Your task to perform on an android device: Search for pizza restaurants on Maps Image 0: 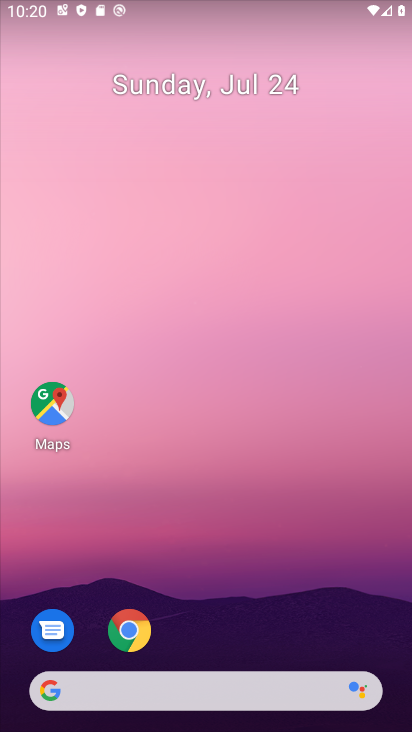
Step 0: click (36, 413)
Your task to perform on an android device: Search for pizza restaurants on Maps Image 1: 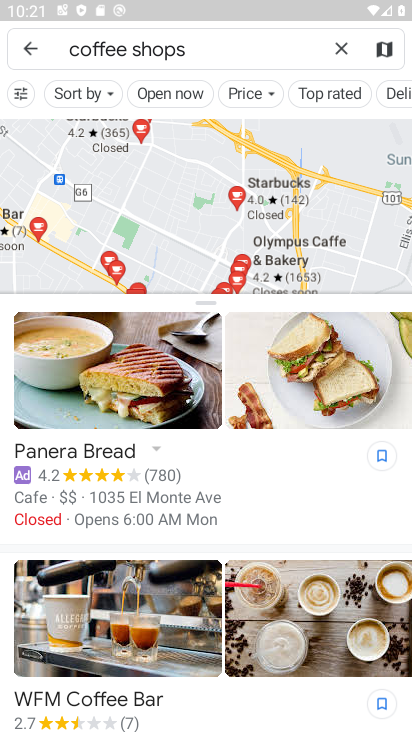
Step 1: click (334, 49)
Your task to perform on an android device: Search for pizza restaurants on Maps Image 2: 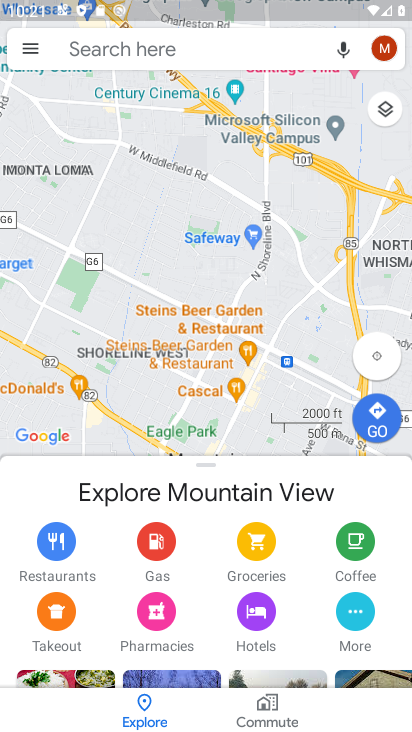
Step 2: click (203, 47)
Your task to perform on an android device: Search for pizza restaurants on Maps Image 3: 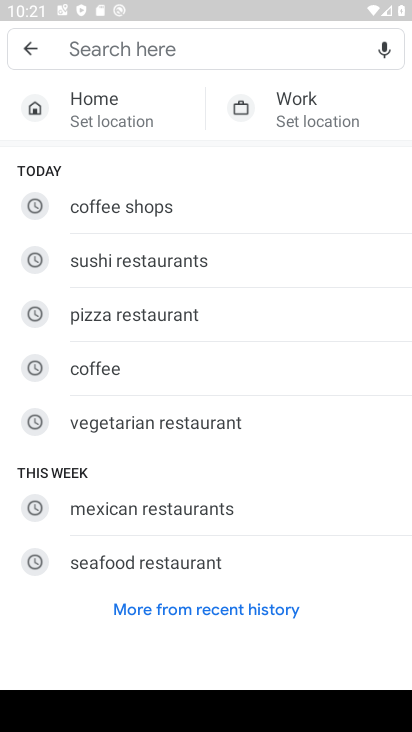
Step 3: click (146, 318)
Your task to perform on an android device: Search for pizza restaurants on Maps Image 4: 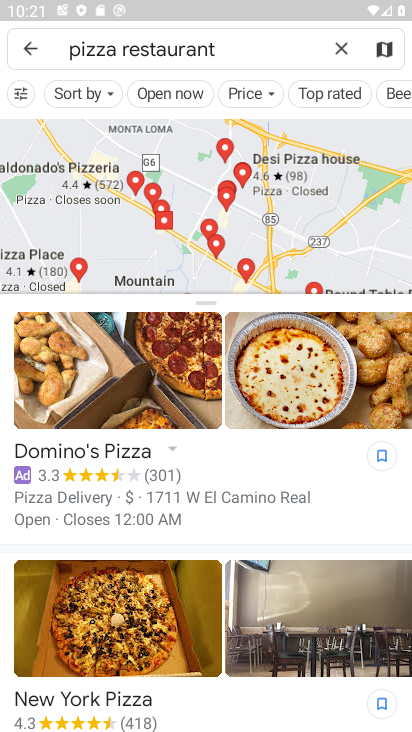
Step 4: task complete